Your task to perform on an android device: open device folders in google photos Image 0: 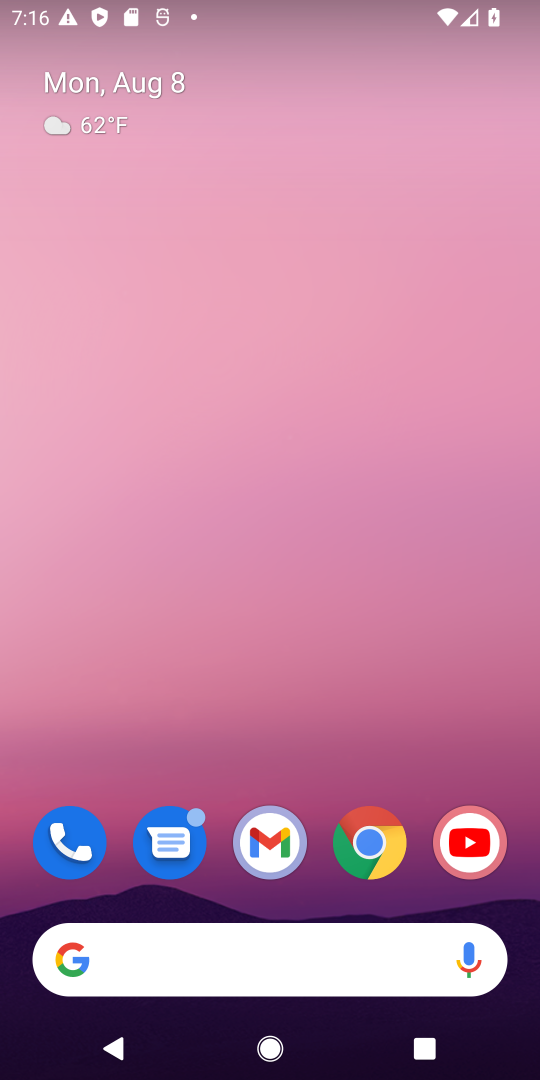
Step 0: drag from (323, 725) to (441, 2)
Your task to perform on an android device: open device folders in google photos Image 1: 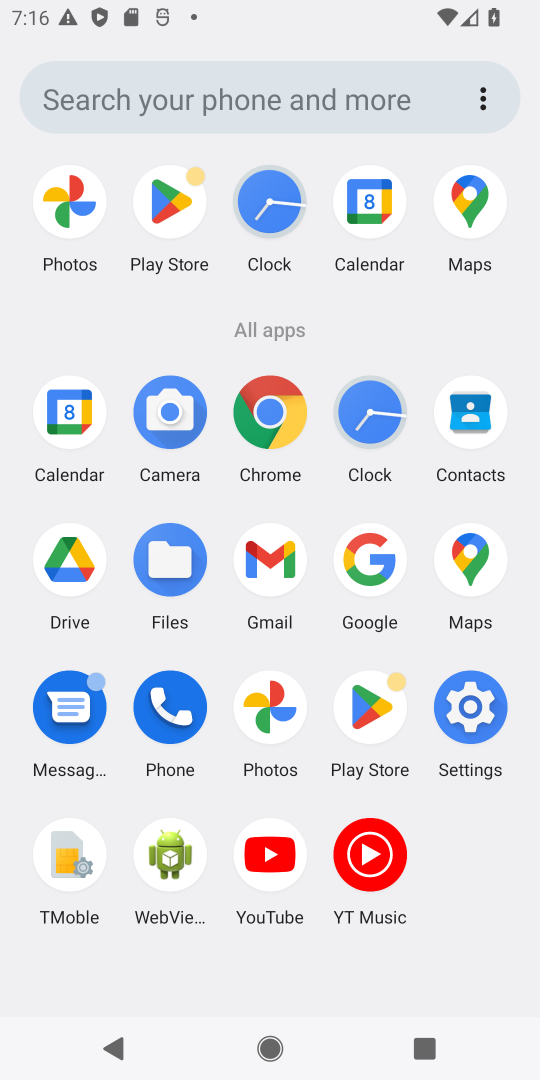
Step 1: click (272, 713)
Your task to perform on an android device: open device folders in google photos Image 2: 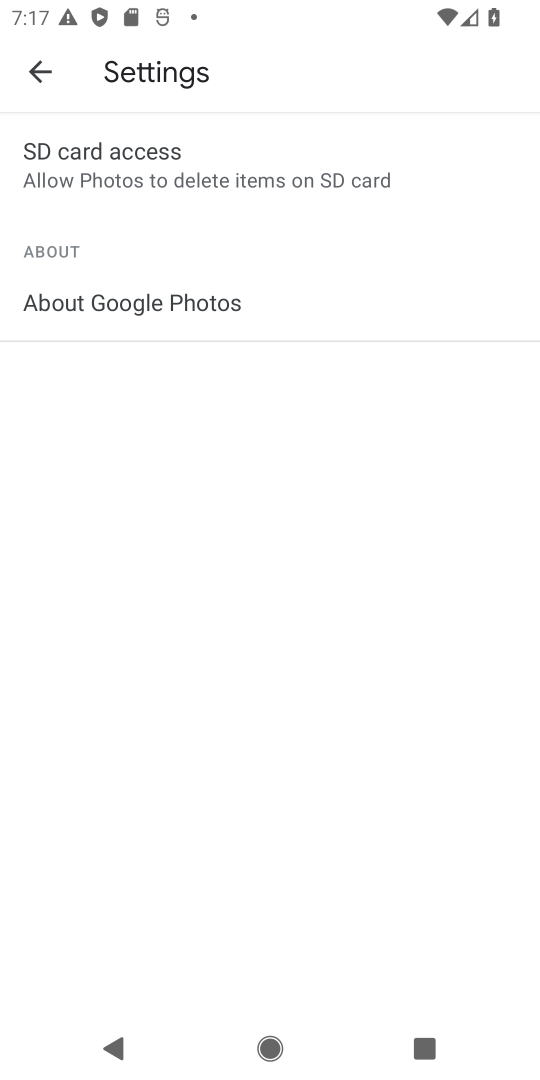
Step 2: click (41, 63)
Your task to perform on an android device: open device folders in google photos Image 3: 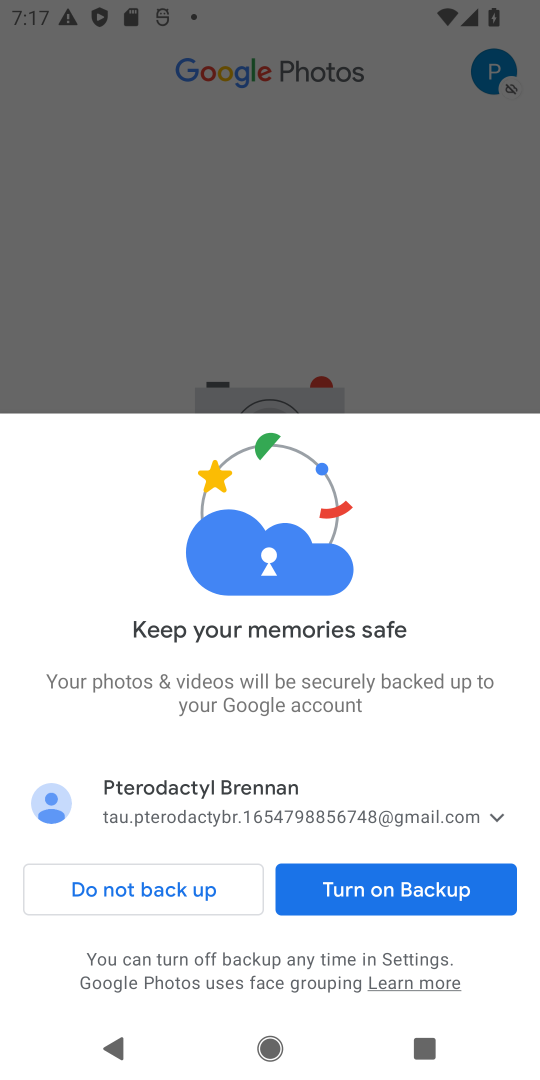
Step 3: click (342, 888)
Your task to perform on an android device: open device folders in google photos Image 4: 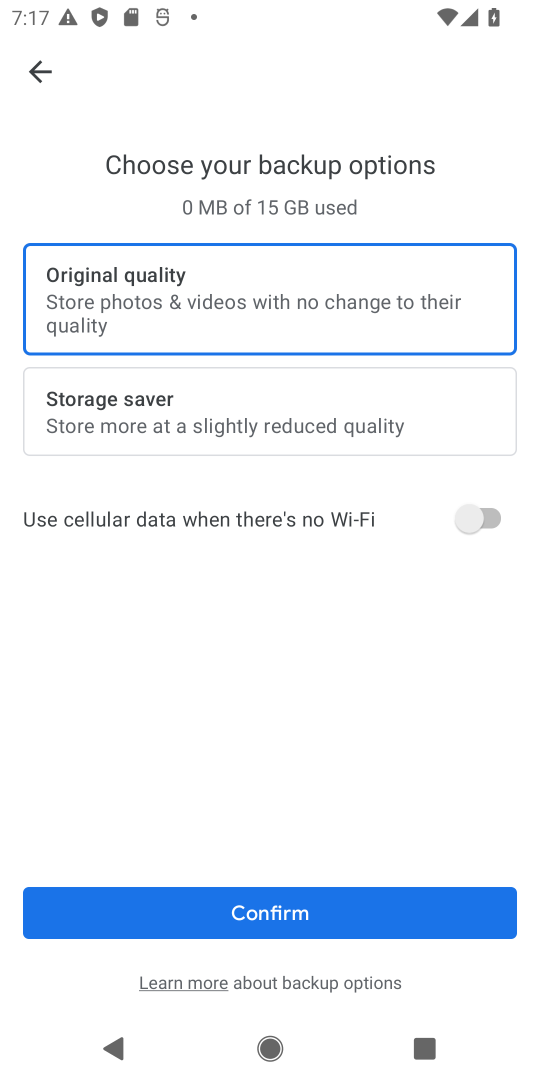
Step 4: click (352, 913)
Your task to perform on an android device: open device folders in google photos Image 5: 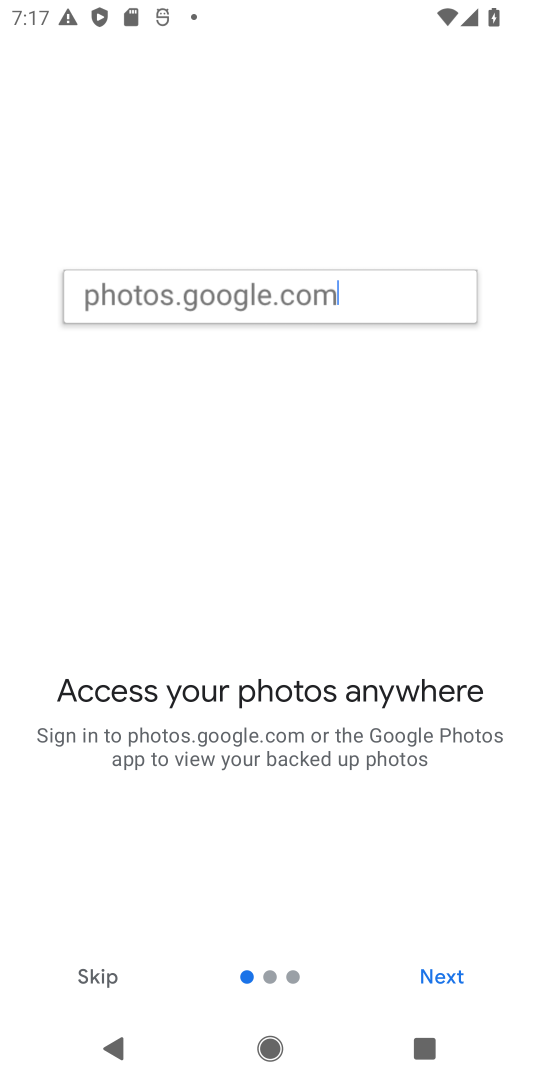
Step 5: click (434, 979)
Your task to perform on an android device: open device folders in google photos Image 6: 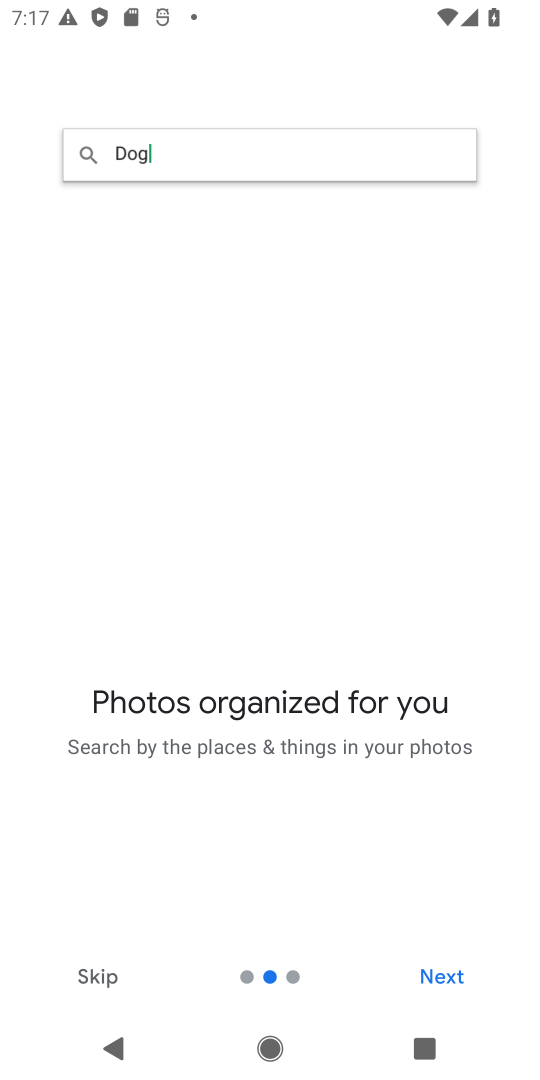
Step 6: click (434, 979)
Your task to perform on an android device: open device folders in google photos Image 7: 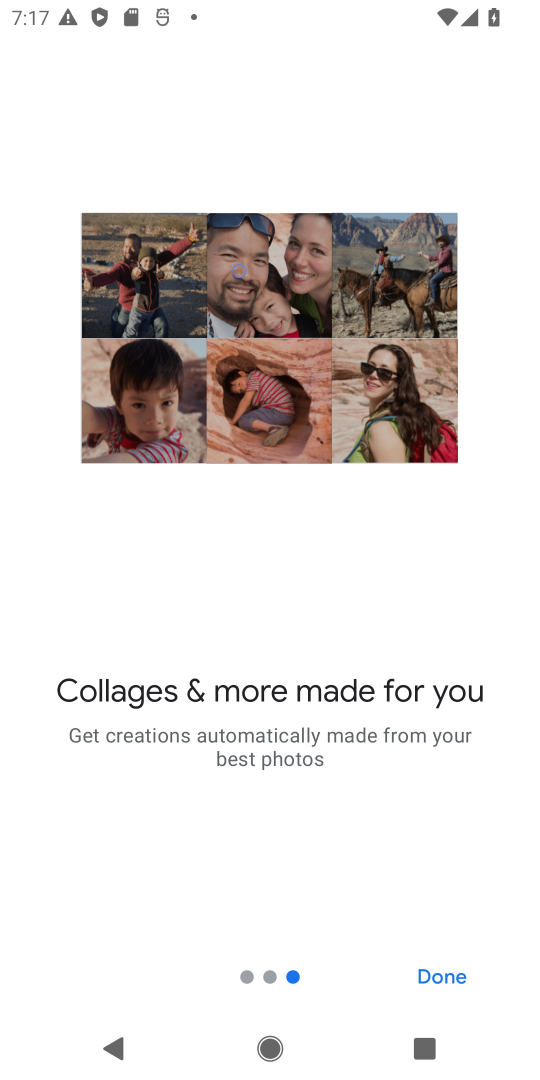
Step 7: click (434, 979)
Your task to perform on an android device: open device folders in google photos Image 8: 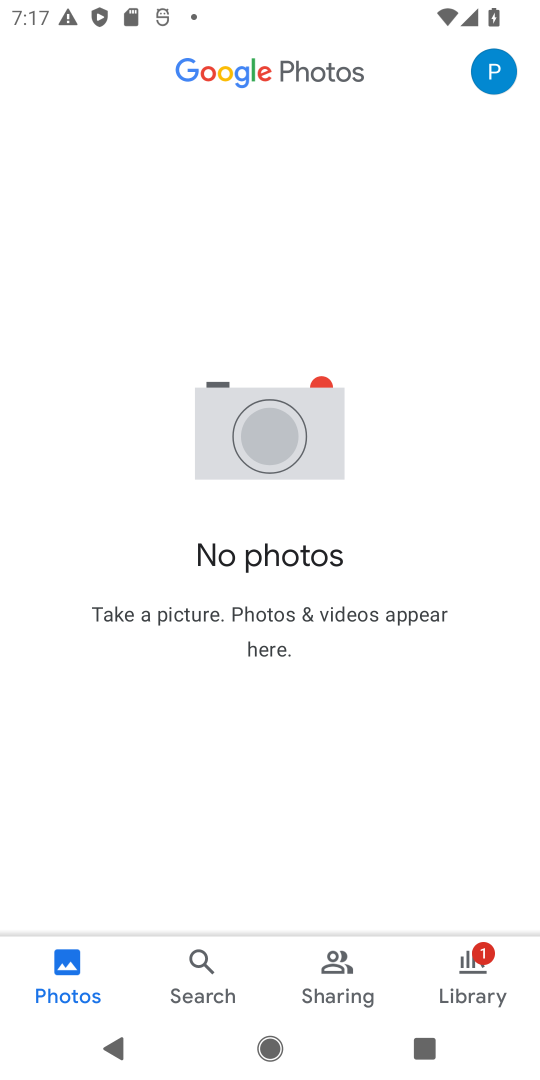
Step 8: click (493, 66)
Your task to perform on an android device: open device folders in google photos Image 9: 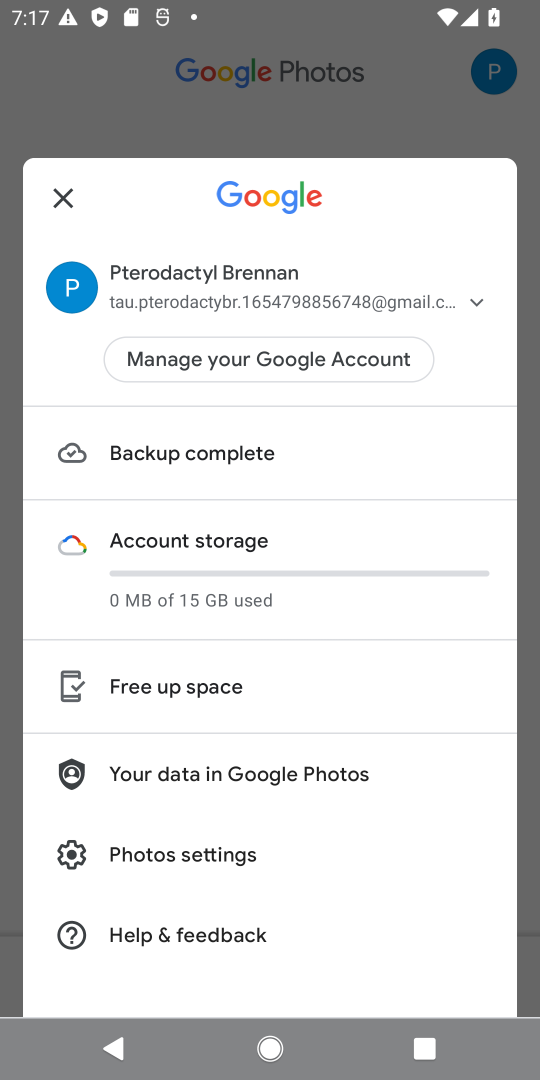
Step 9: drag from (326, 693) to (328, 343)
Your task to perform on an android device: open device folders in google photos Image 10: 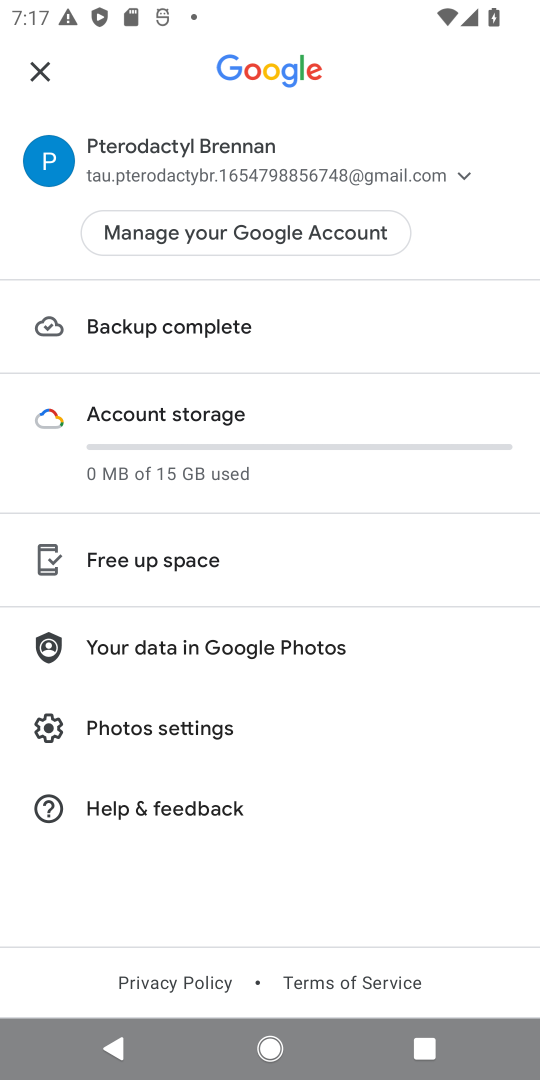
Step 10: click (44, 68)
Your task to perform on an android device: open device folders in google photos Image 11: 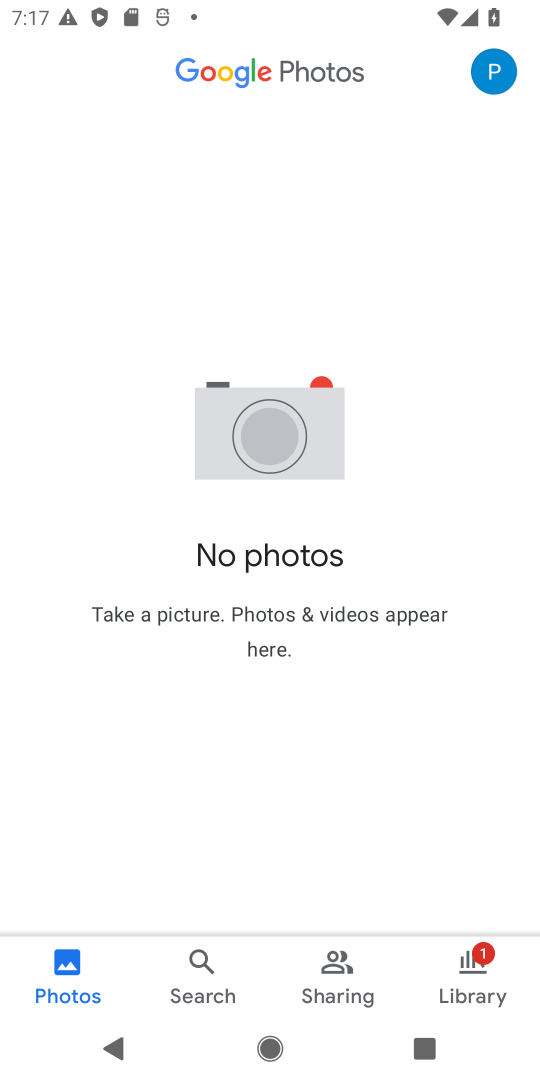
Step 11: click (176, 62)
Your task to perform on an android device: open device folders in google photos Image 12: 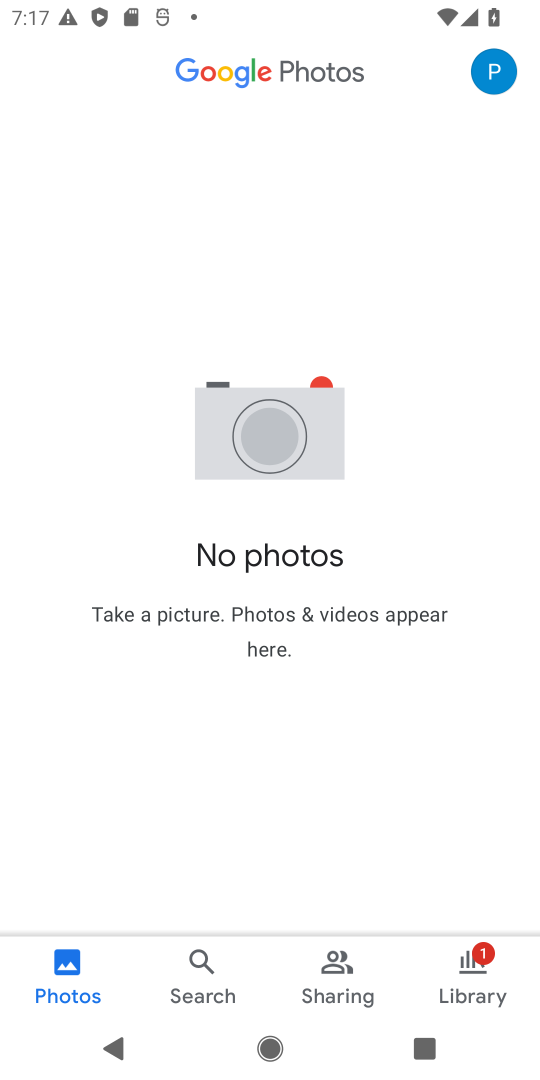
Step 12: click (305, 76)
Your task to perform on an android device: open device folders in google photos Image 13: 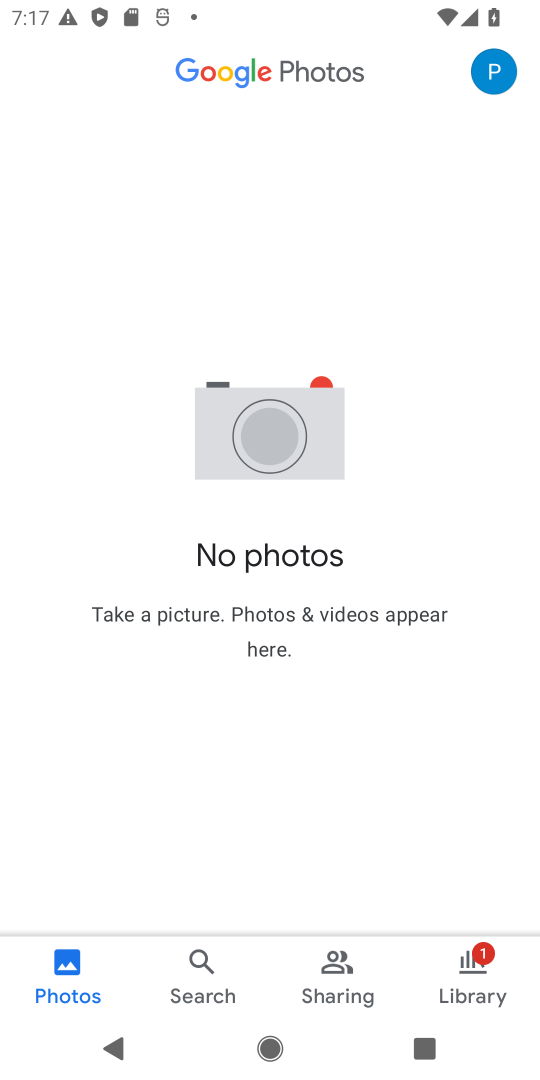
Step 13: click (500, 68)
Your task to perform on an android device: open device folders in google photos Image 14: 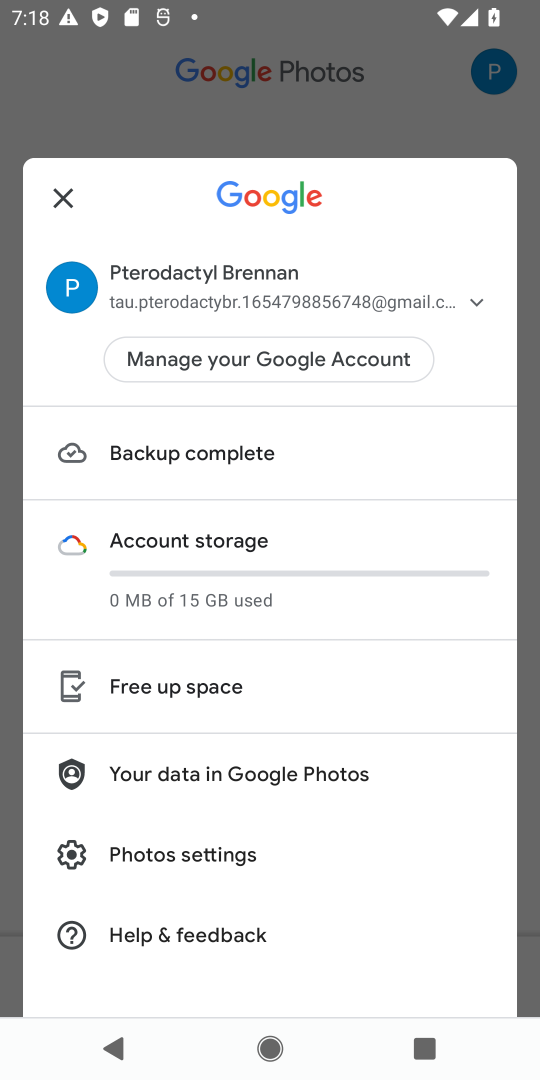
Step 14: click (229, 865)
Your task to perform on an android device: open device folders in google photos Image 15: 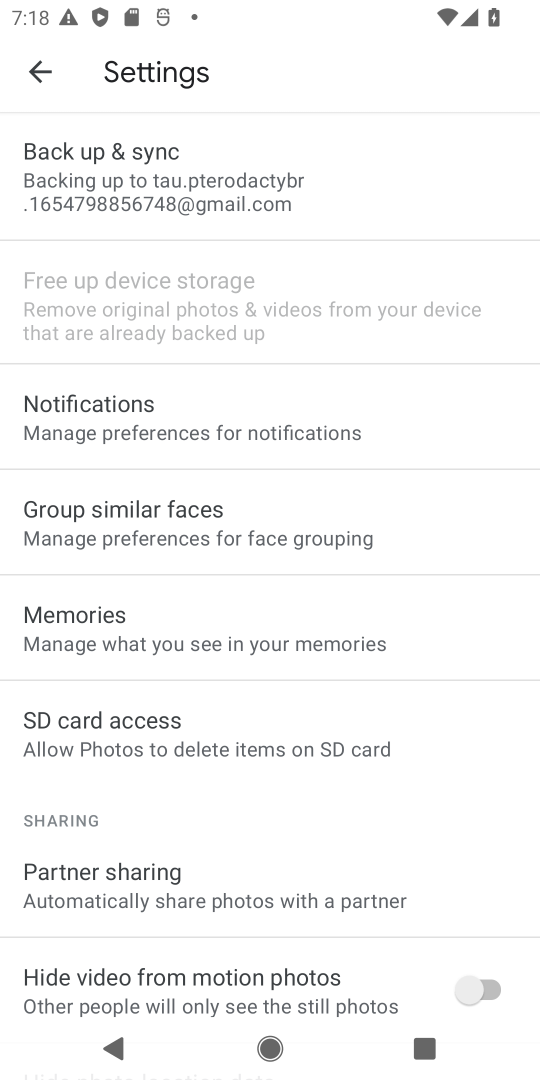
Step 15: task complete